Your task to perform on an android device: open app "Google Chat" Image 0: 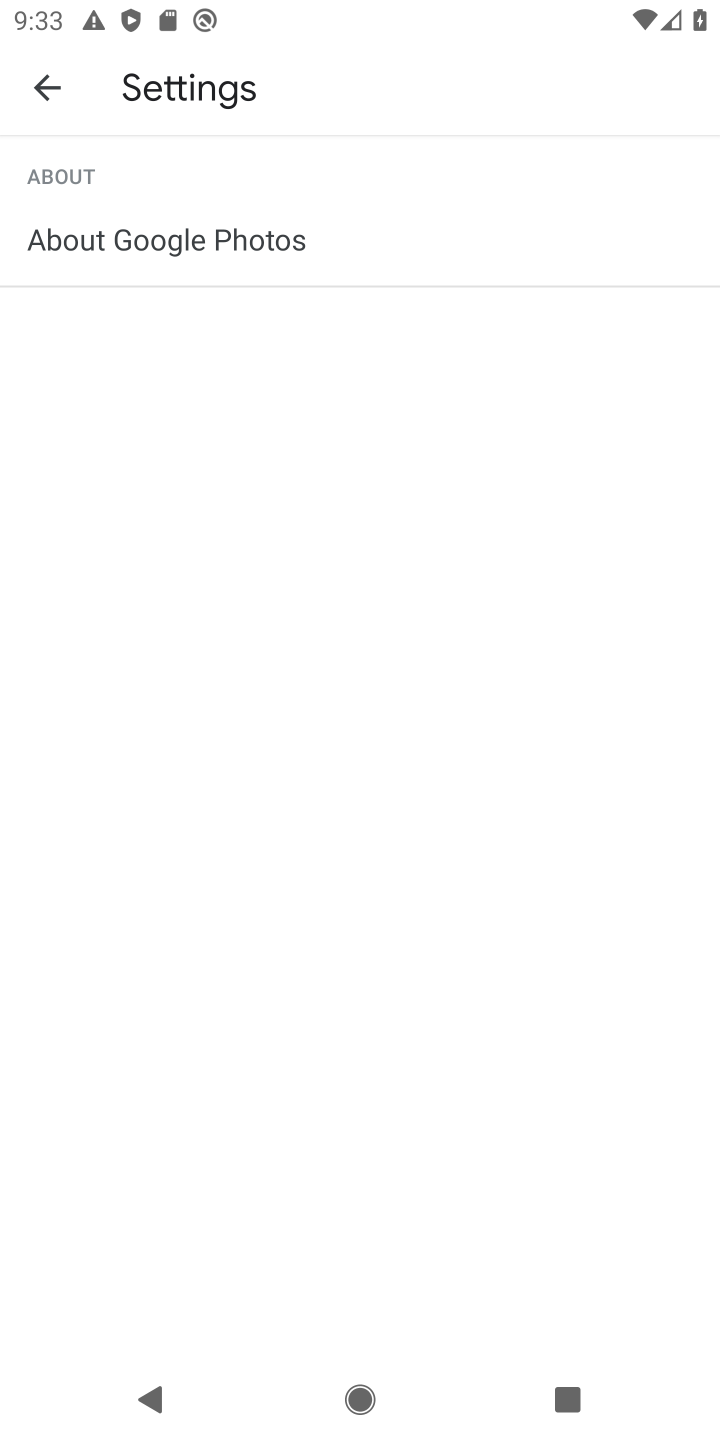
Step 0: press home button
Your task to perform on an android device: open app "Google Chat" Image 1: 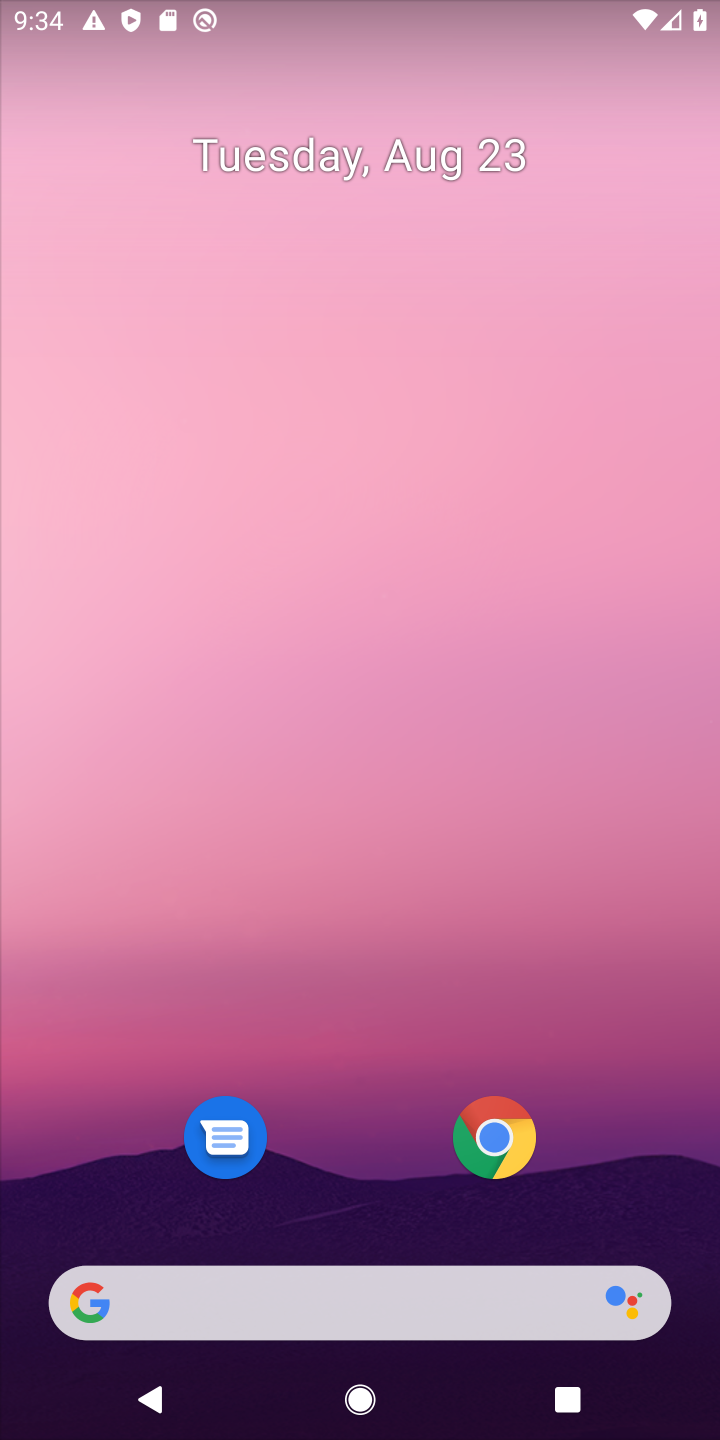
Step 1: drag from (419, 1195) to (249, 224)
Your task to perform on an android device: open app "Google Chat" Image 2: 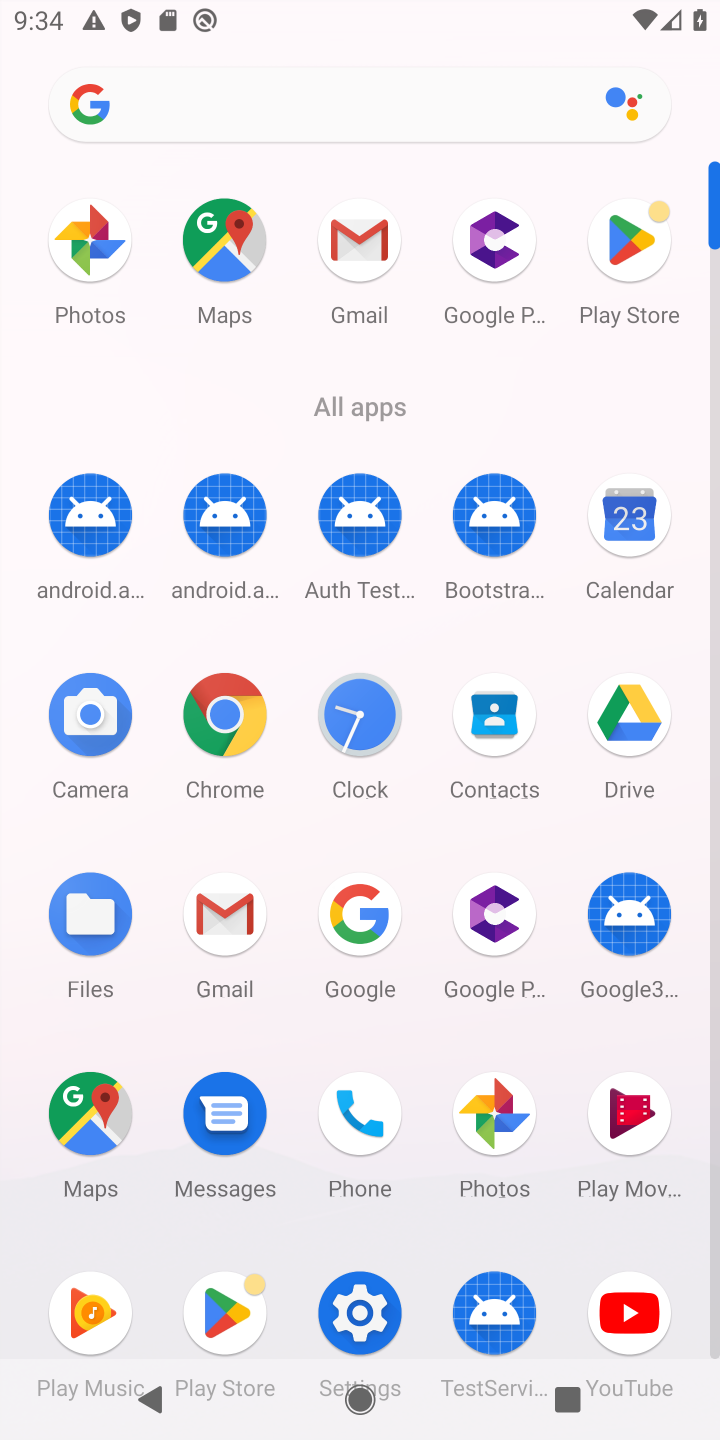
Step 2: click (237, 1278)
Your task to perform on an android device: open app "Google Chat" Image 3: 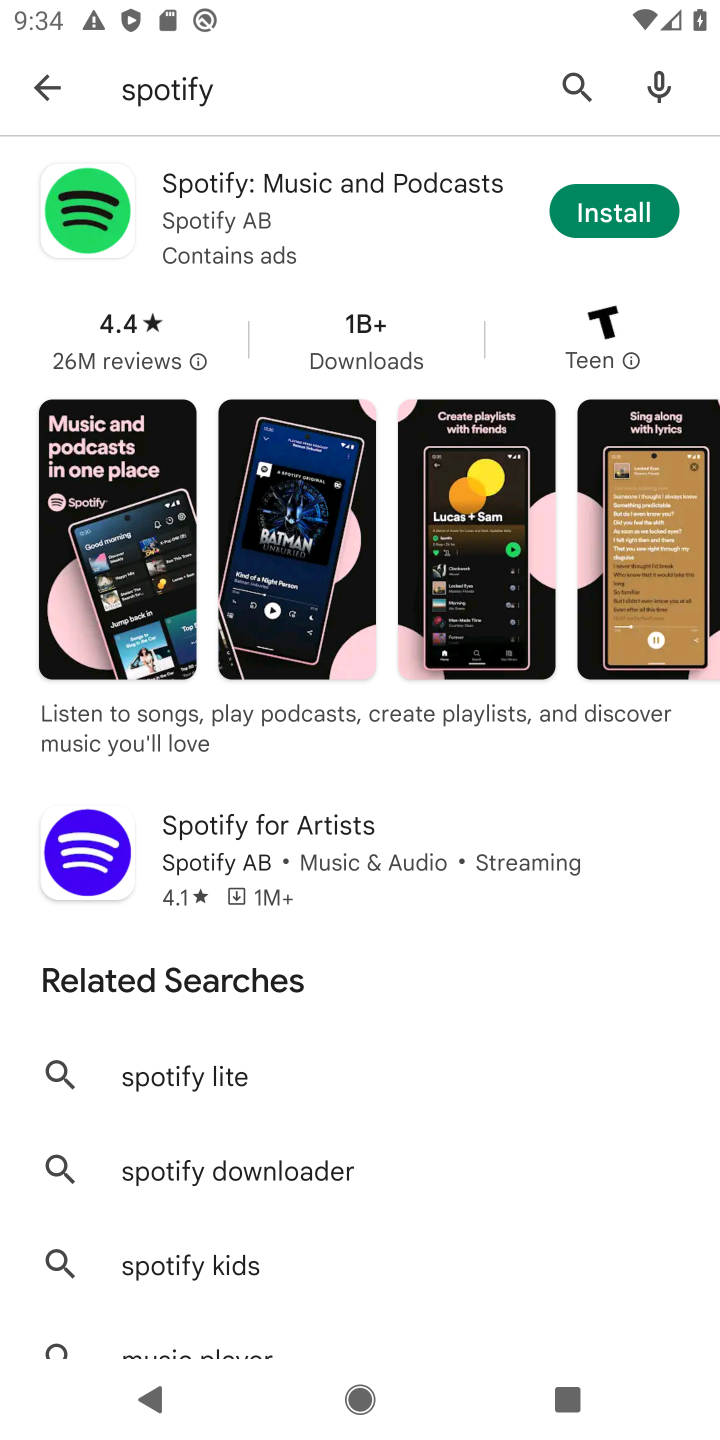
Step 3: click (27, 86)
Your task to perform on an android device: open app "Google Chat" Image 4: 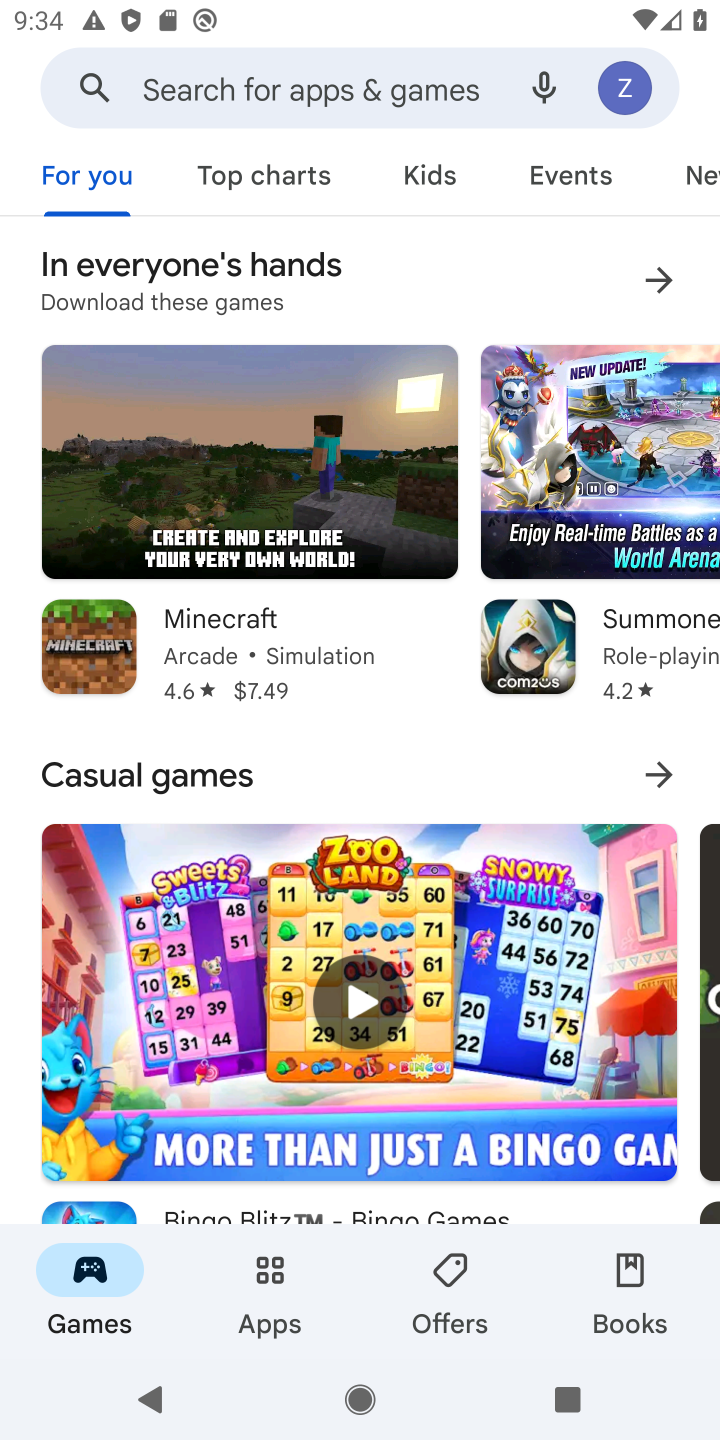
Step 4: click (122, 96)
Your task to perform on an android device: open app "Google Chat" Image 5: 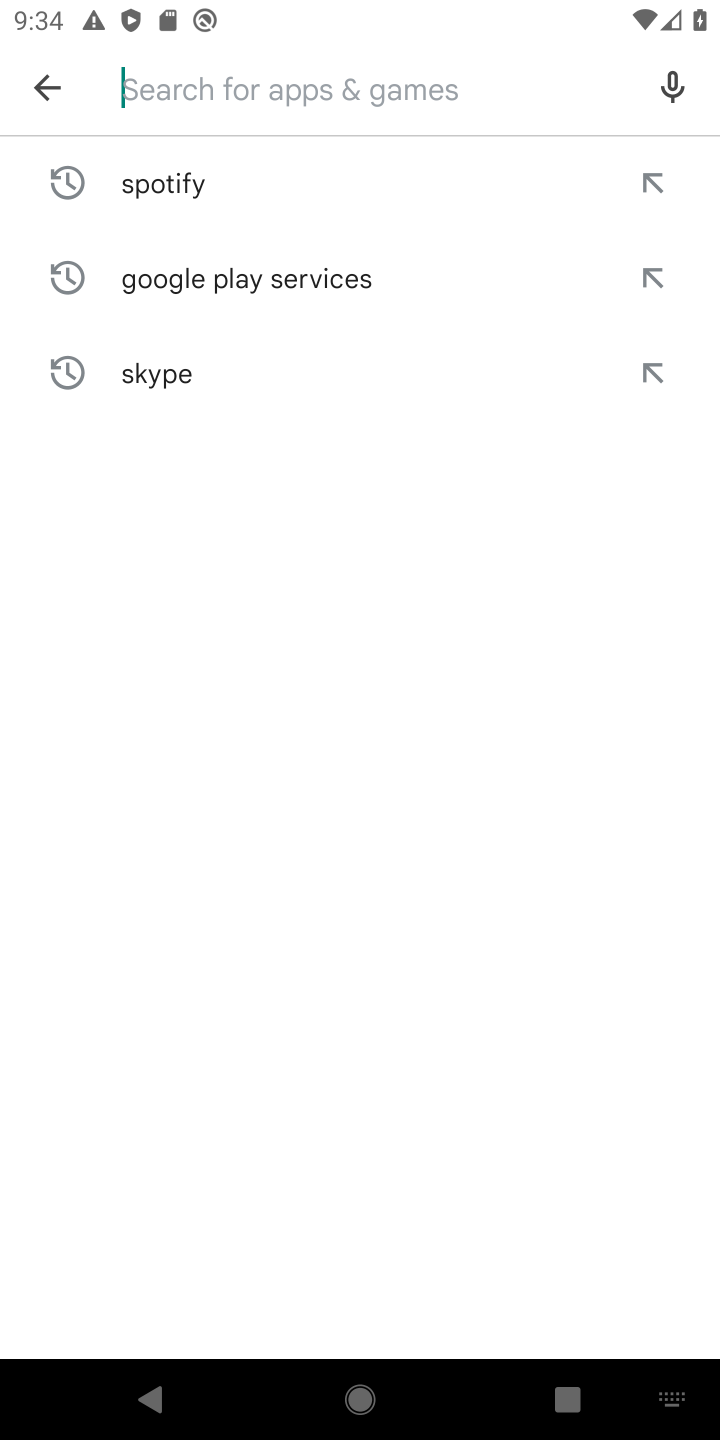
Step 5: type "Google Chat"
Your task to perform on an android device: open app "Google Chat" Image 6: 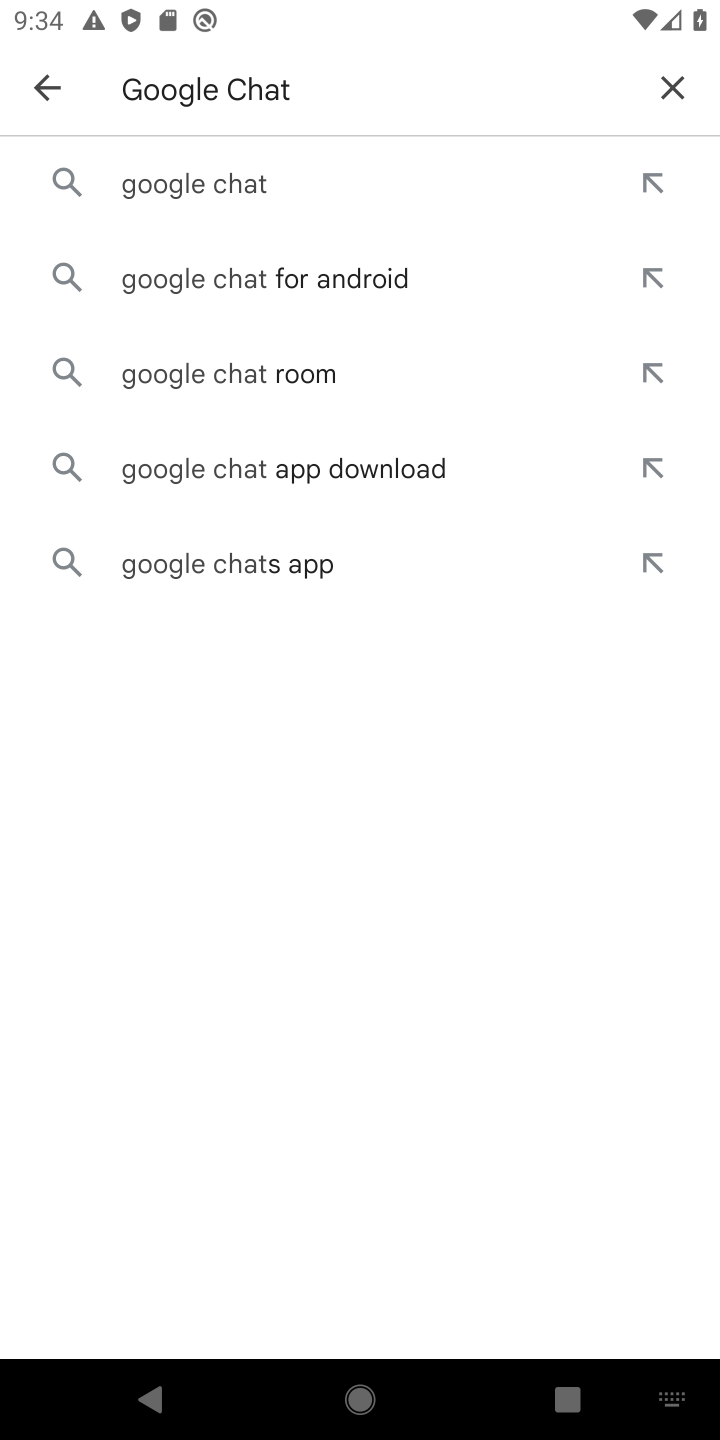
Step 6: click (203, 169)
Your task to perform on an android device: open app "Google Chat" Image 7: 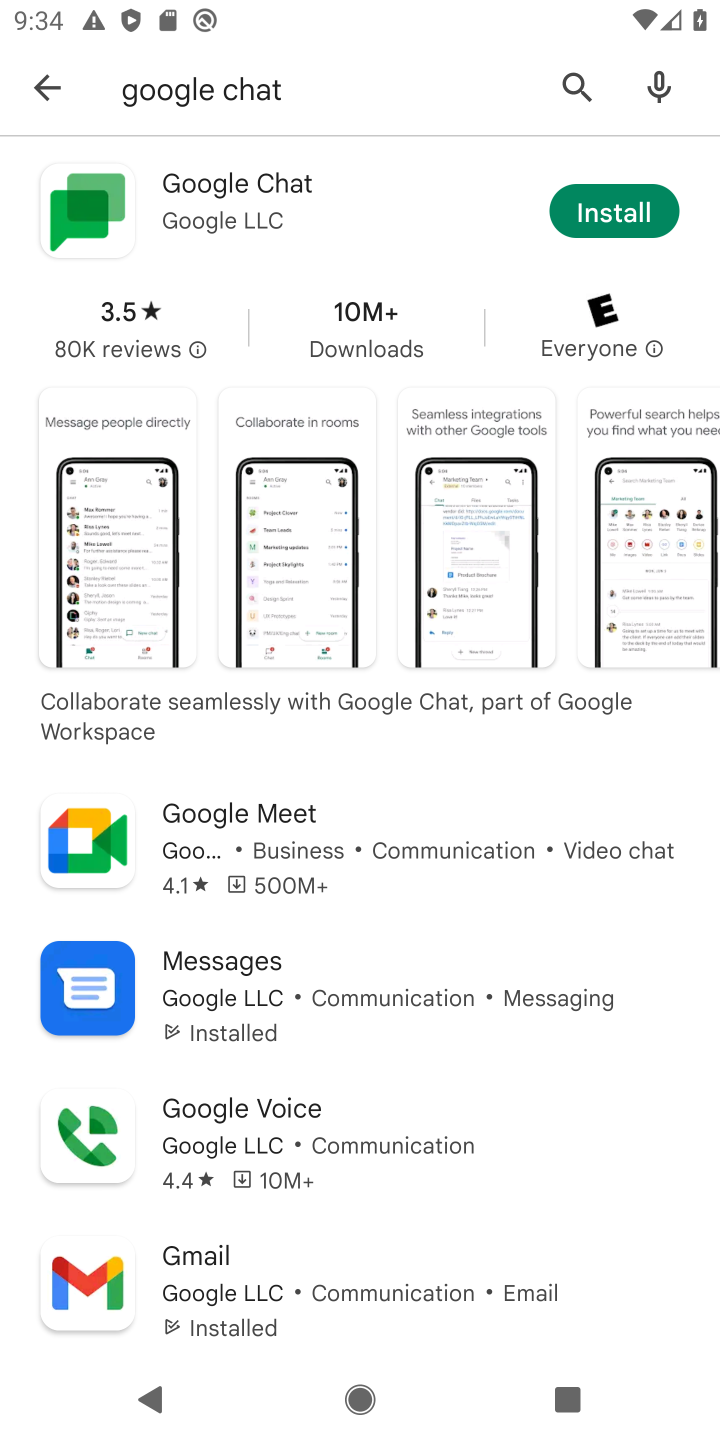
Step 7: task complete